Your task to perform on an android device: change the clock display to digital Image 0: 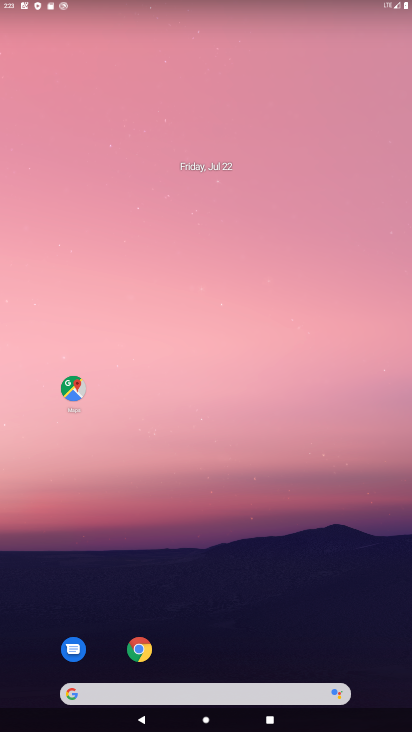
Step 0: drag from (167, 626) to (221, 97)
Your task to perform on an android device: change the clock display to digital Image 1: 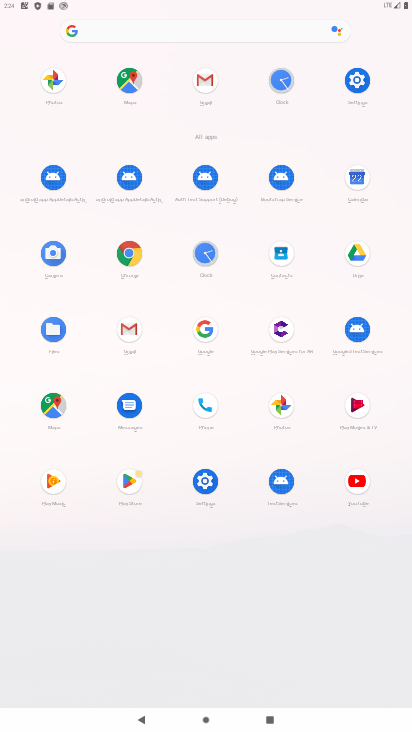
Step 1: click (205, 245)
Your task to perform on an android device: change the clock display to digital Image 2: 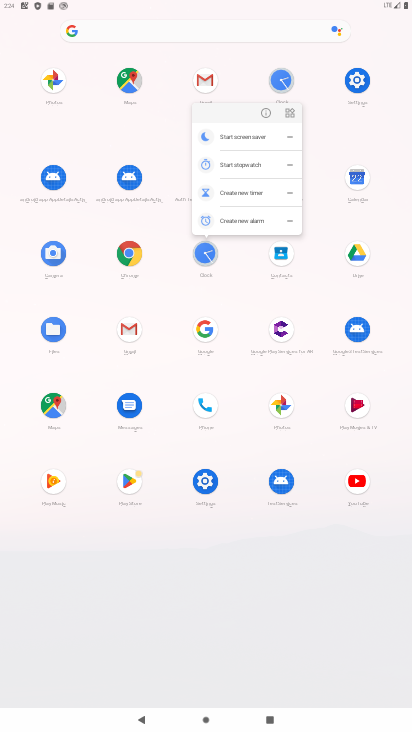
Step 2: click (263, 117)
Your task to perform on an android device: change the clock display to digital Image 3: 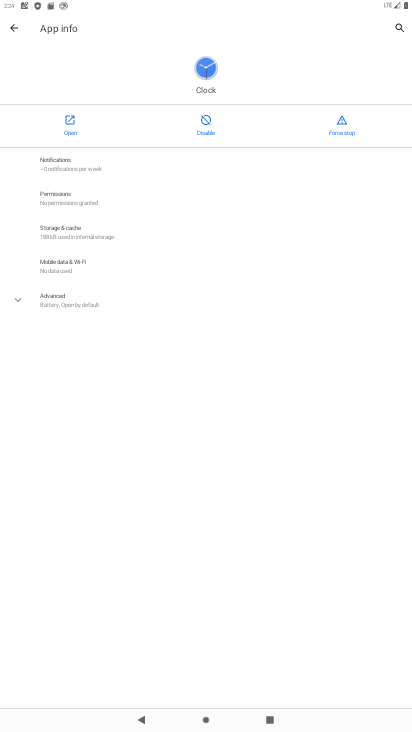
Step 3: click (77, 132)
Your task to perform on an android device: change the clock display to digital Image 4: 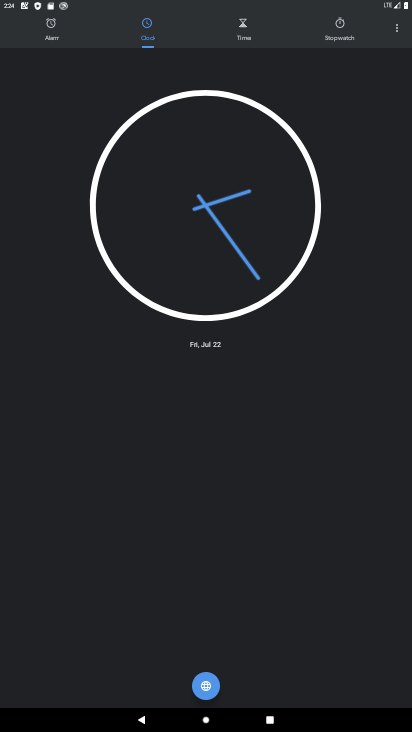
Step 4: drag from (387, 30) to (362, 159)
Your task to perform on an android device: change the clock display to digital Image 5: 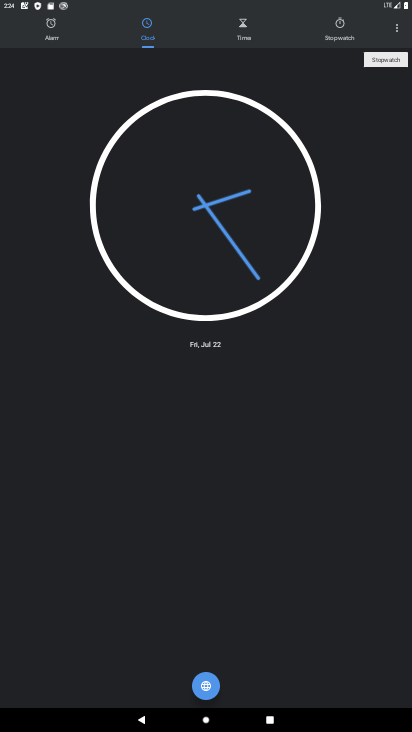
Step 5: drag from (399, 31) to (347, 50)
Your task to perform on an android device: change the clock display to digital Image 6: 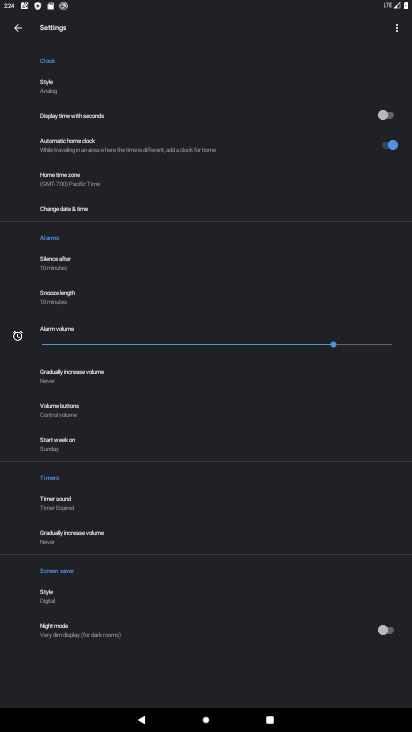
Step 6: click (52, 90)
Your task to perform on an android device: change the clock display to digital Image 7: 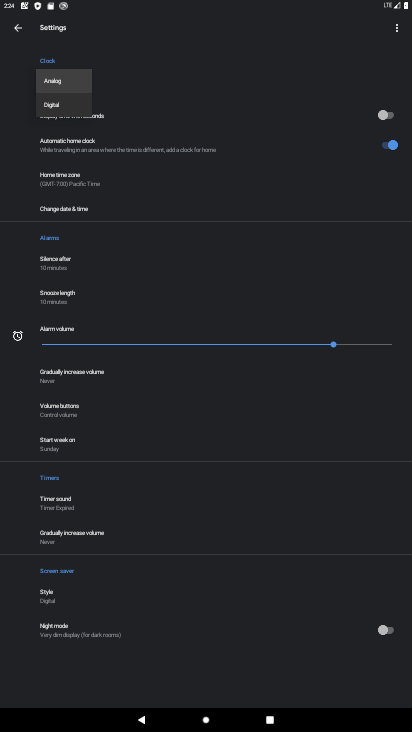
Step 7: click (63, 100)
Your task to perform on an android device: change the clock display to digital Image 8: 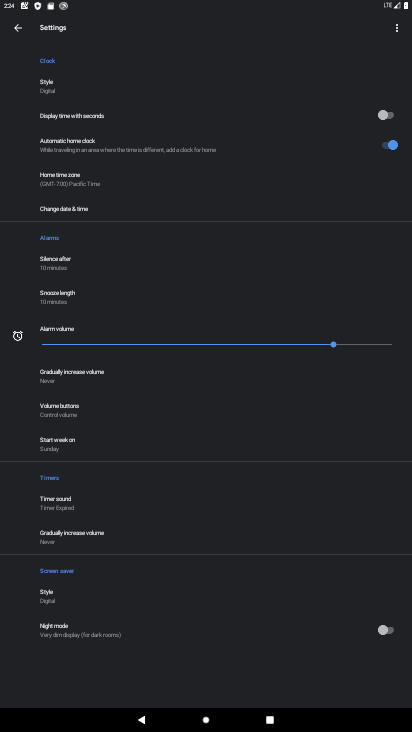
Step 8: task complete